Your task to perform on an android device: Play the last video I watched on Youtube Image 0: 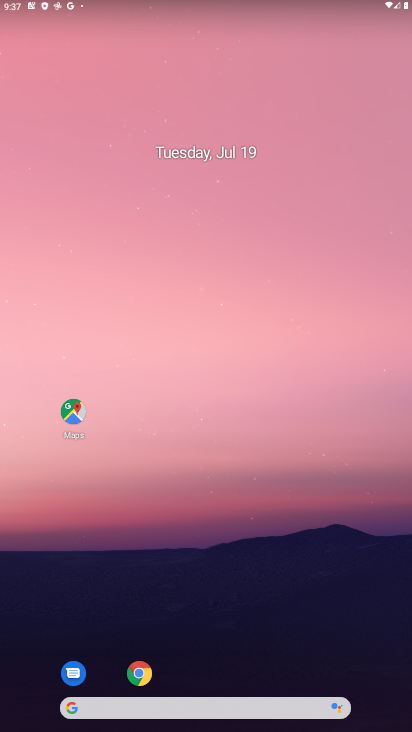
Step 0: drag from (208, 669) to (168, 75)
Your task to perform on an android device: Play the last video I watched on Youtube Image 1: 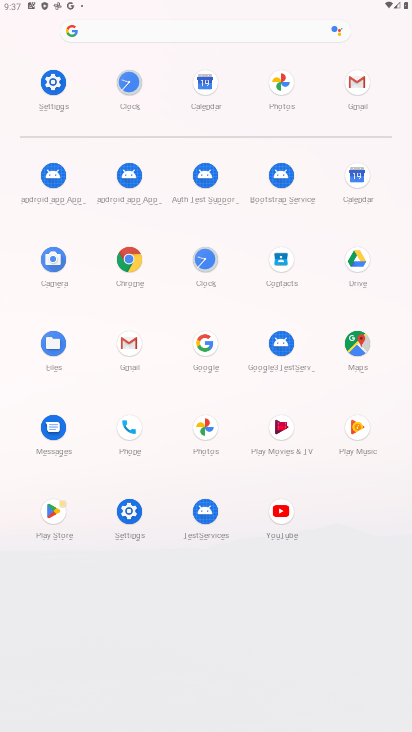
Step 1: click (280, 531)
Your task to perform on an android device: Play the last video I watched on Youtube Image 2: 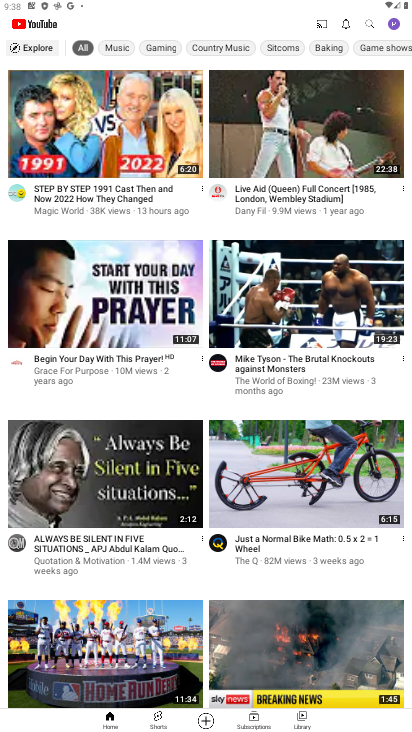
Step 2: task complete